Your task to perform on an android device: empty trash in google photos Image 0: 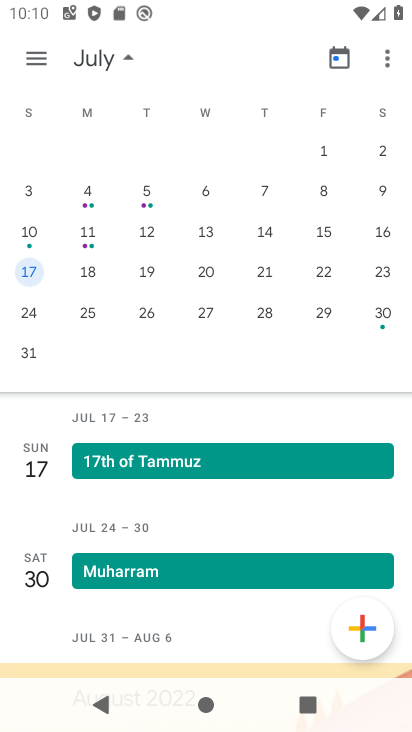
Step 0: press home button
Your task to perform on an android device: empty trash in google photos Image 1: 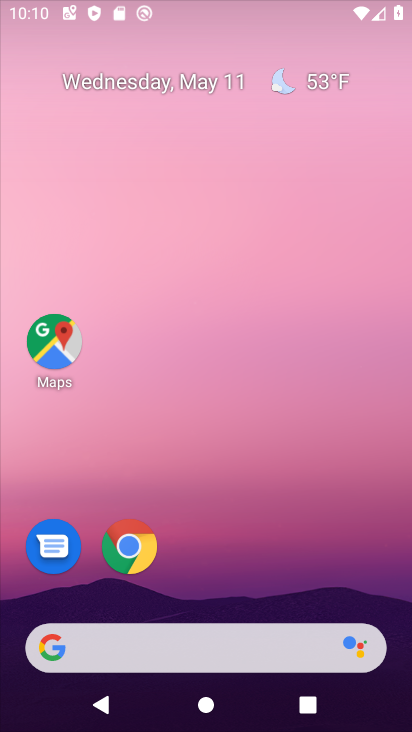
Step 1: drag from (387, 623) to (275, 29)
Your task to perform on an android device: empty trash in google photos Image 2: 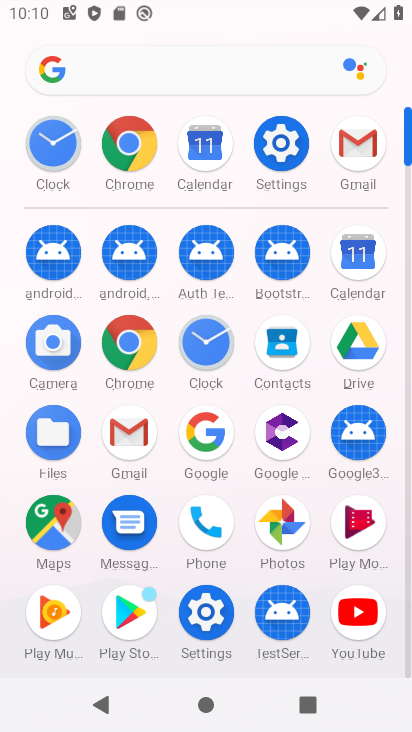
Step 2: click (267, 514)
Your task to perform on an android device: empty trash in google photos Image 3: 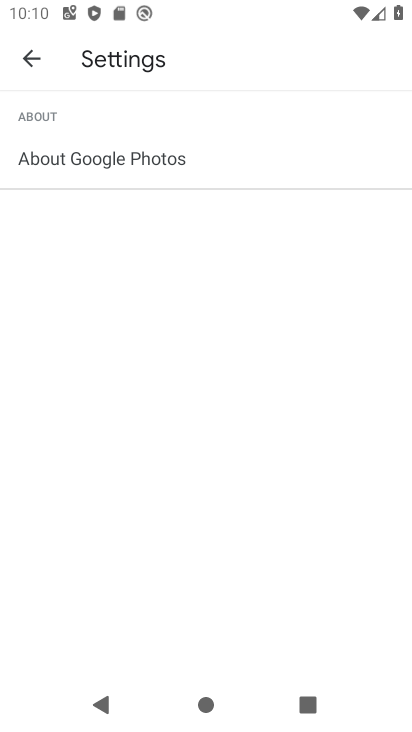
Step 3: press back button
Your task to perform on an android device: empty trash in google photos Image 4: 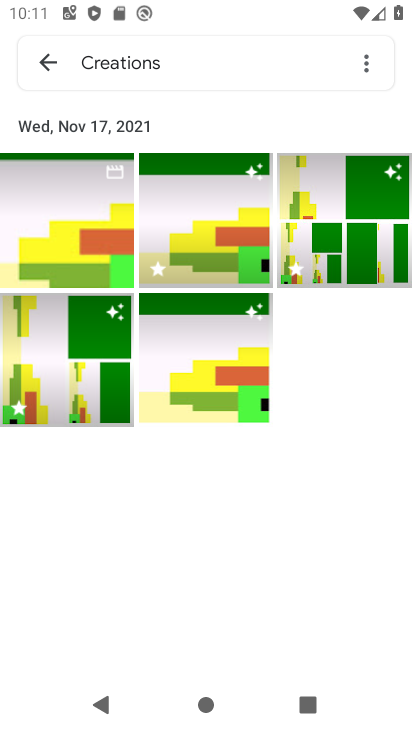
Step 4: press back button
Your task to perform on an android device: empty trash in google photos Image 5: 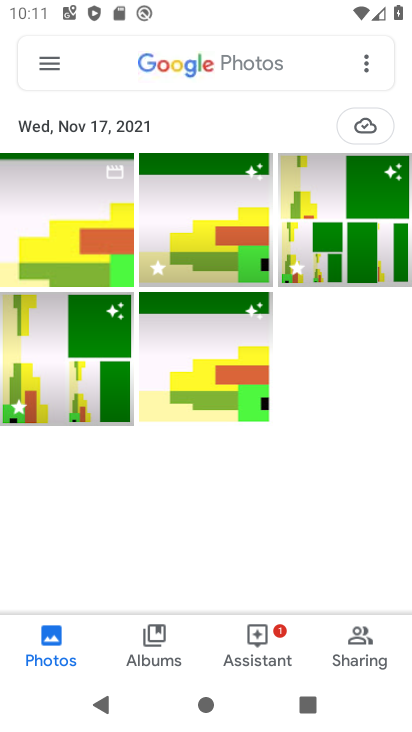
Step 5: click (46, 73)
Your task to perform on an android device: empty trash in google photos Image 6: 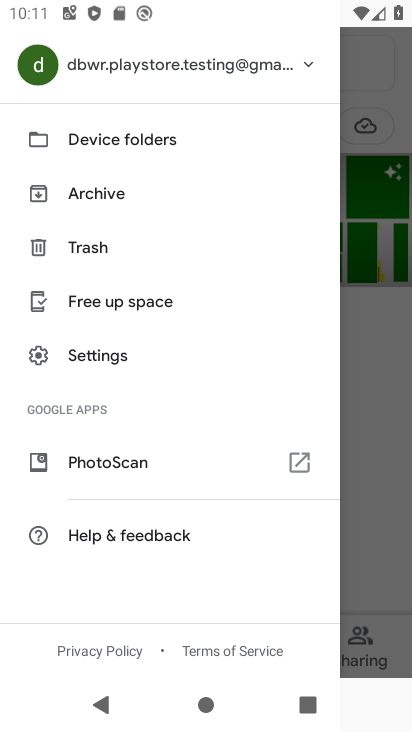
Step 6: click (115, 251)
Your task to perform on an android device: empty trash in google photos Image 7: 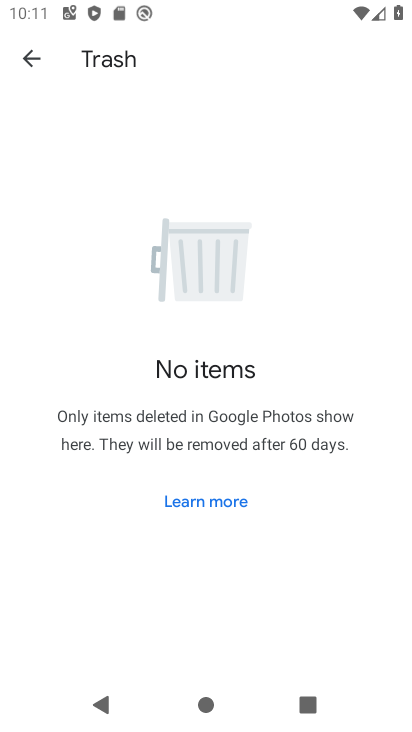
Step 7: task complete